Your task to perform on an android device: check out phone information Image 0: 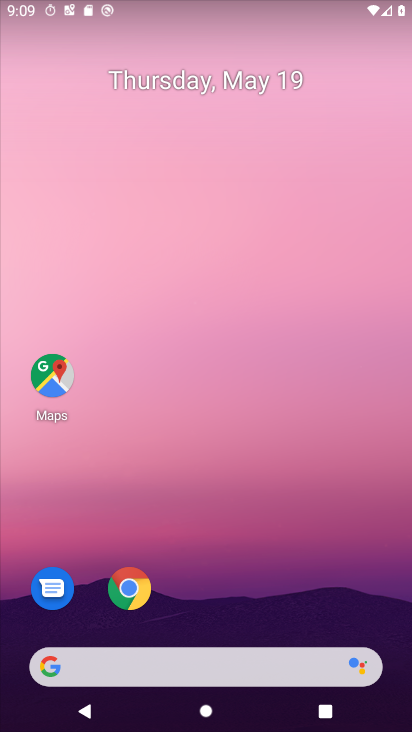
Step 0: press home button
Your task to perform on an android device: check out phone information Image 1: 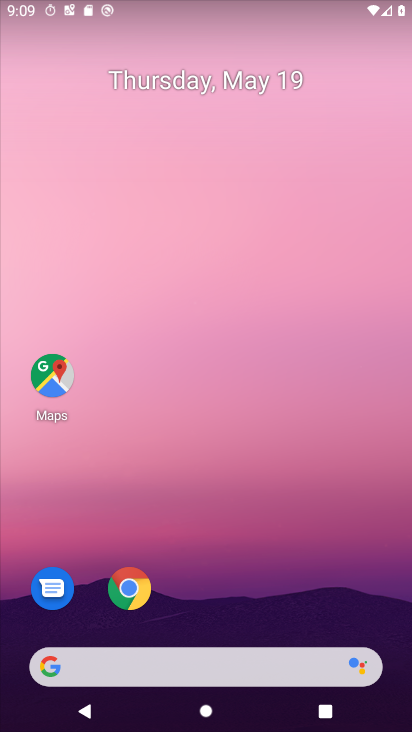
Step 1: drag from (167, 668) to (307, 93)
Your task to perform on an android device: check out phone information Image 2: 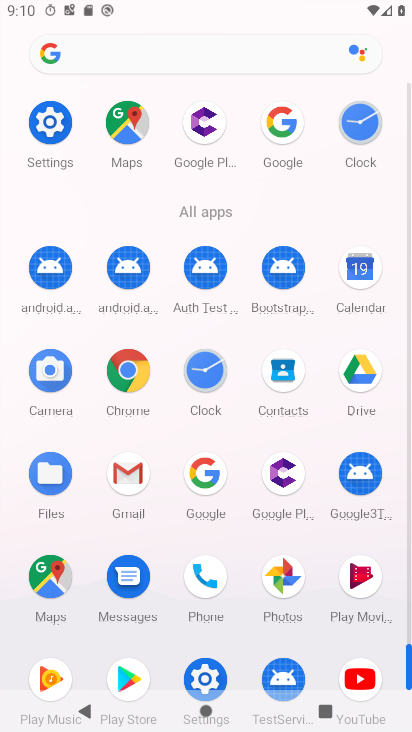
Step 2: click (206, 671)
Your task to perform on an android device: check out phone information Image 3: 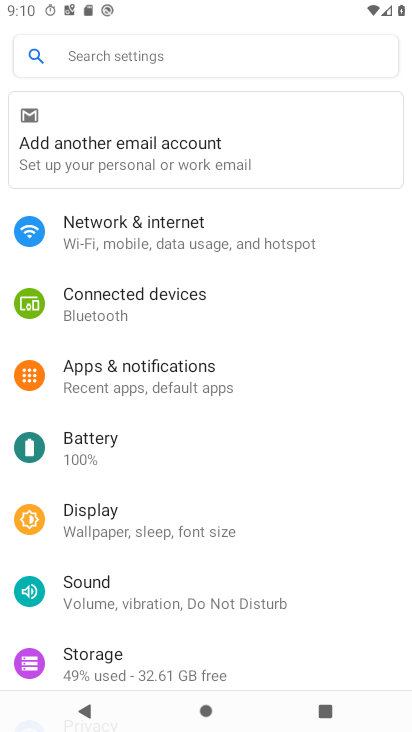
Step 3: drag from (224, 632) to (381, 94)
Your task to perform on an android device: check out phone information Image 4: 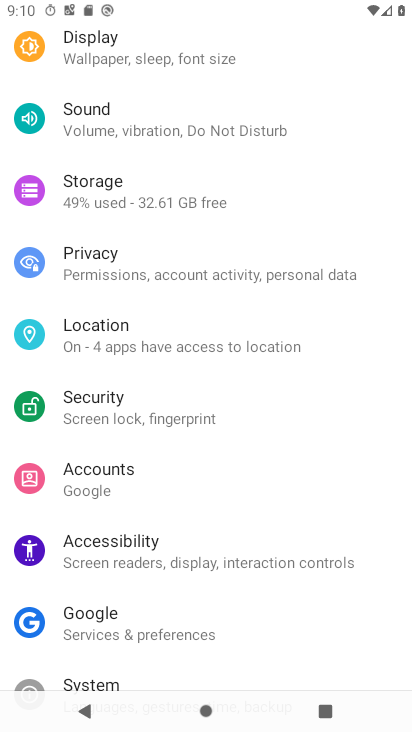
Step 4: drag from (258, 627) to (343, 110)
Your task to perform on an android device: check out phone information Image 5: 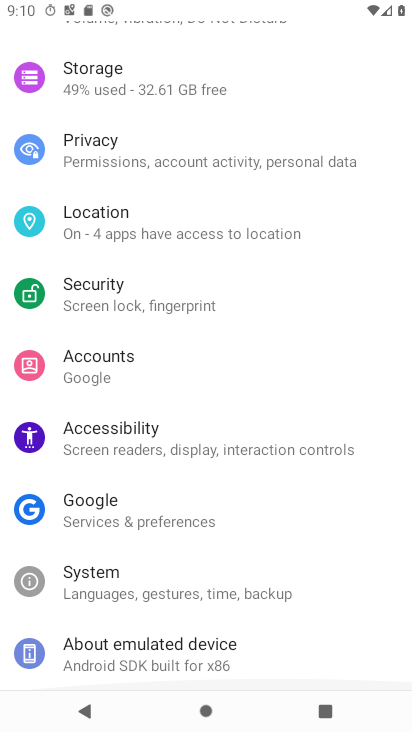
Step 5: click (180, 648)
Your task to perform on an android device: check out phone information Image 6: 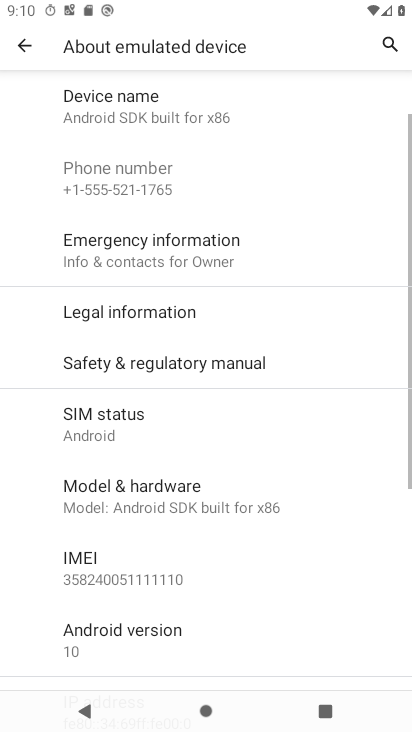
Step 6: task complete